Your task to perform on an android device: delete browsing data in the chrome app Image 0: 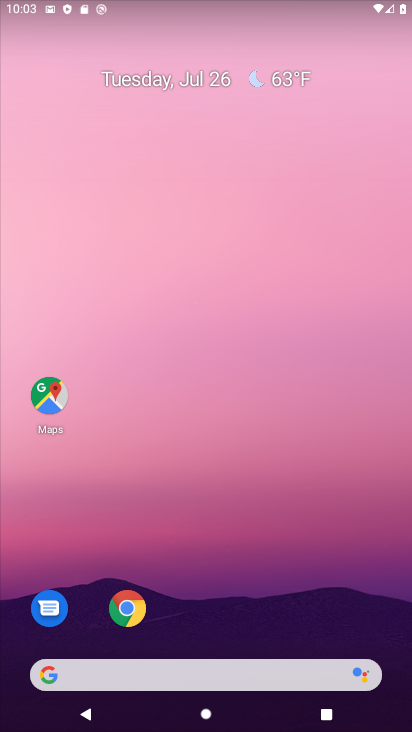
Step 0: press home button
Your task to perform on an android device: delete browsing data in the chrome app Image 1: 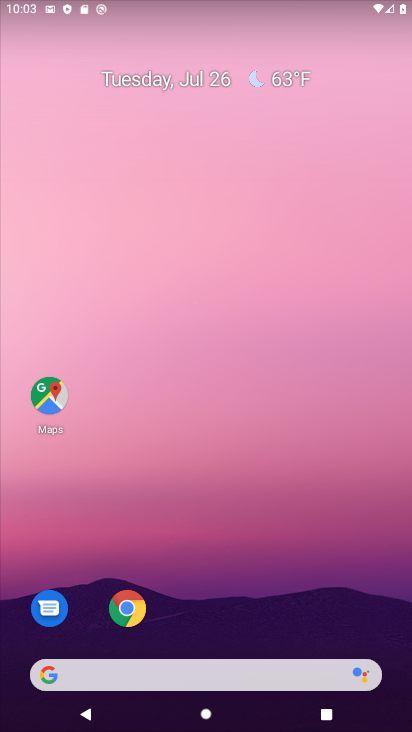
Step 1: drag from (284, 642) to (239, 142)
Your task to perform on an android device: delete browsing data in the chrome app Image 2: 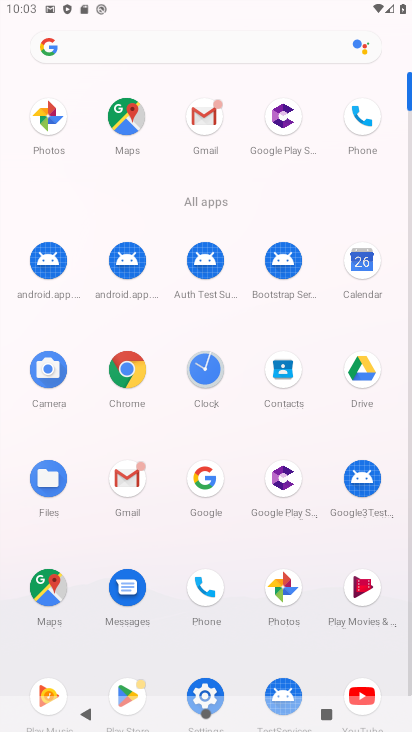
Step 2: click (117, 371)
Your task to perform on an android device: delete browsing data in the chrome app Image 3: 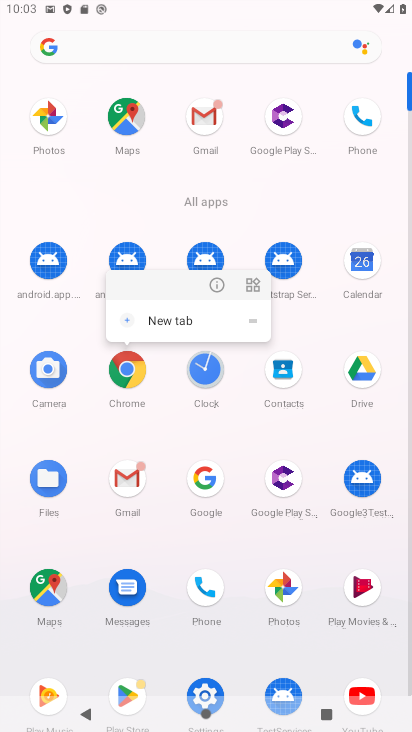
Step 3: click (117, 371)
Your task to perform on an android device: delete browsing data in the chrome app Image 4: 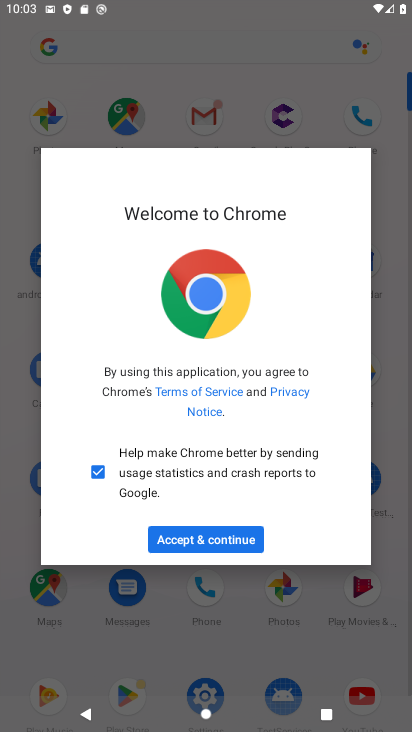
Step 4: click (227, 534)
Your task to perform on an android device: delete browsing data in the chrome app Image 5: 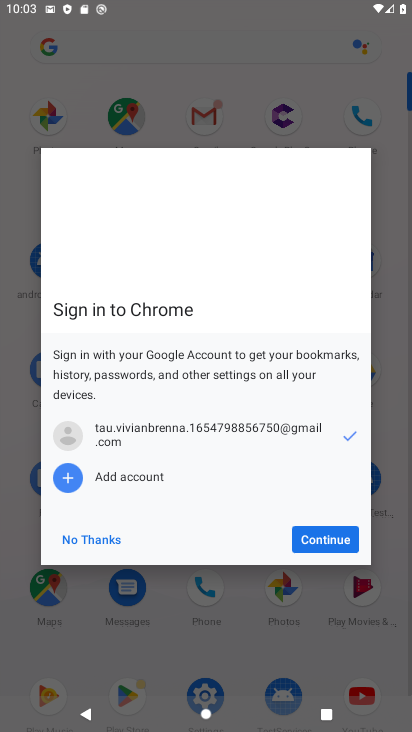
Step 5: click (316, 543)
Your task to perform on an android device: delete browsing data in the chrome app Image 6: 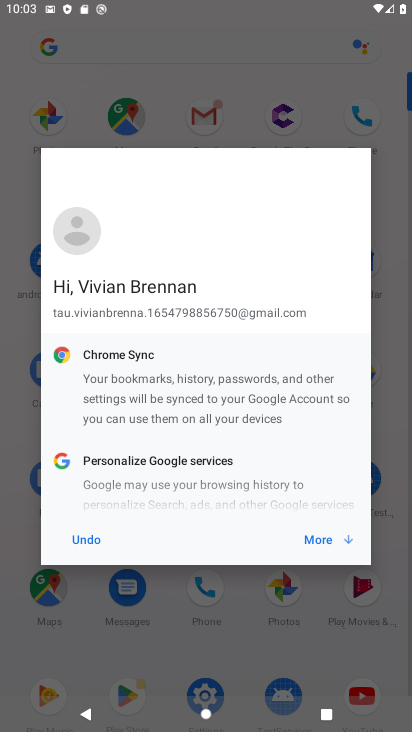
Step 6: click (325, 539)
Your task to perform on an android device: delete browsing data in the chrome app Image 7: 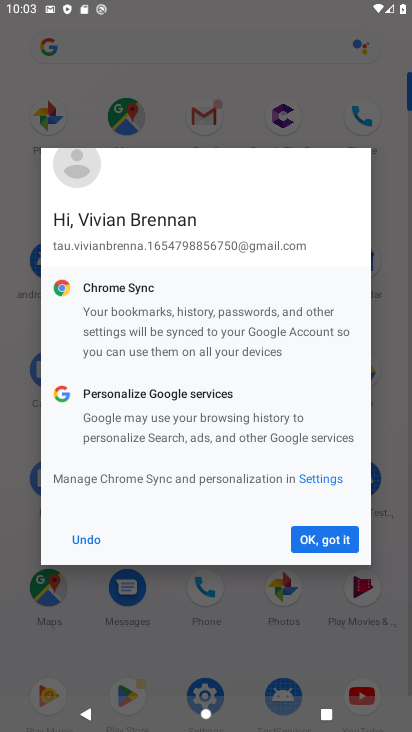
Step 7: click (332, 540)
Your task to perform on an android device: delete browsing data in the chrome app Image 8: 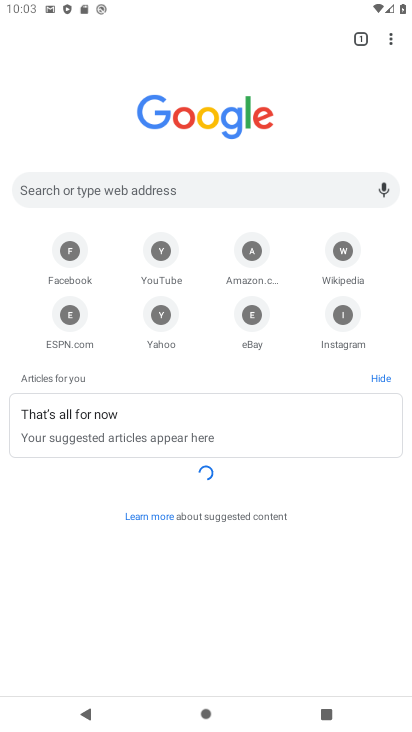
Step 8: drag from (386, 44) to (249, 326)
Your task to perform on an android device: delete browsing data in the chrome app Image 9: 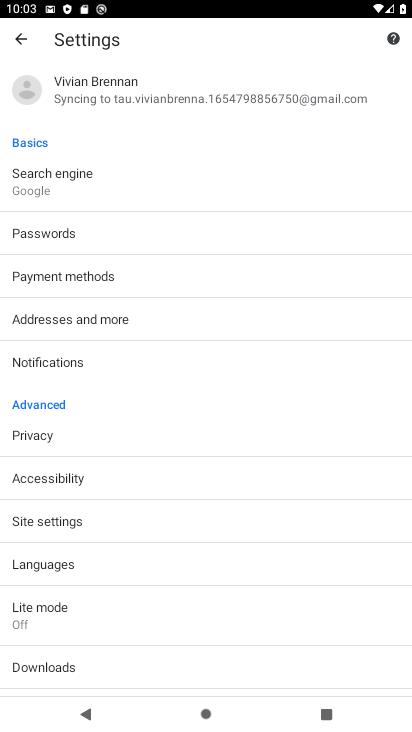
Step 9: click (67, 430)
Your task to perform on an android device: delete browsing data in the chrome app Image 10: 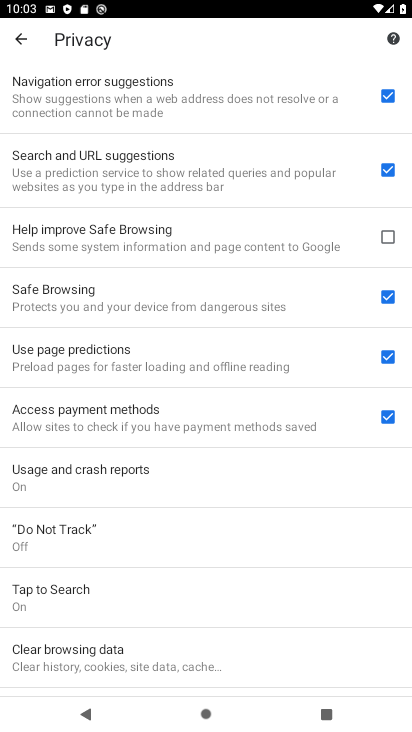
Step 10: click (184, 669)
Your task to perform on an android device: delete browsing data in the chrome app Image 11: 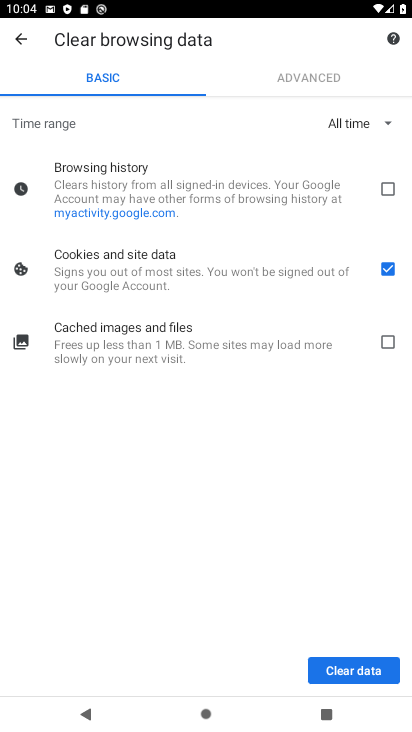
Step 11: click (390, 195)
Your task to perform on an android device: delete browsing data in the chrome app Image 12: 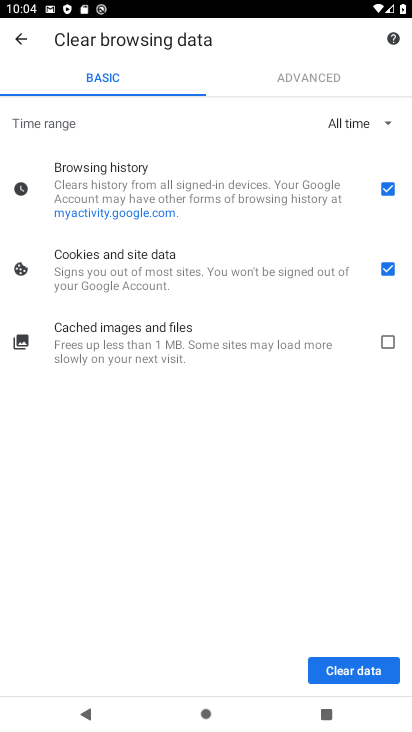
Step 12: click (396, 336)
Your task to perform on an android device: delete browsing data in the chrome app Image 13: 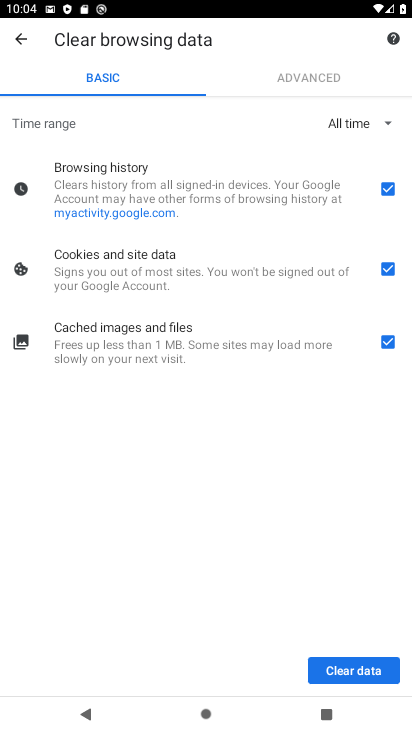
Step 13: click (335, 667)
Your task to perform on an android device: delete browsing data in the chrome app Image 14: 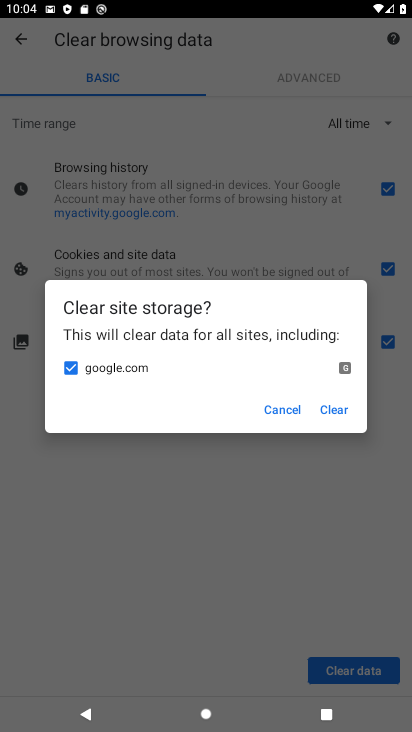
Step 14: click (331, 408)
Your task to perform on an android device: delete browsing data in the chrome app Image 15: 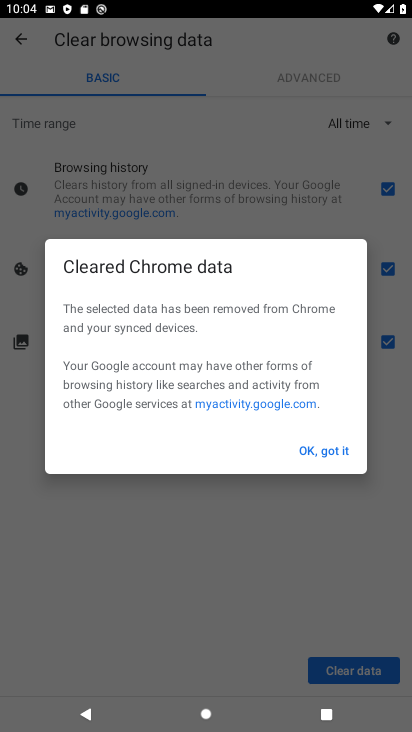
Step 15: click (335, 449)
Your task to perform on an android device: delete browsing data in the chrome app Image 16: 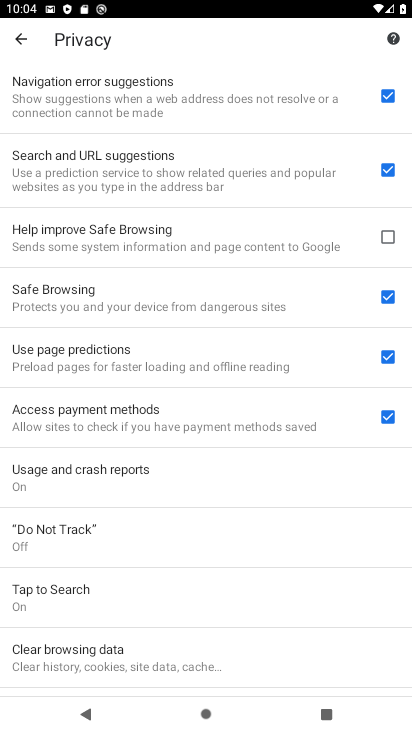
Step 16: task complete